Your task to perform on an android device: open app "Venmo" (install if not already installed) Image 0: 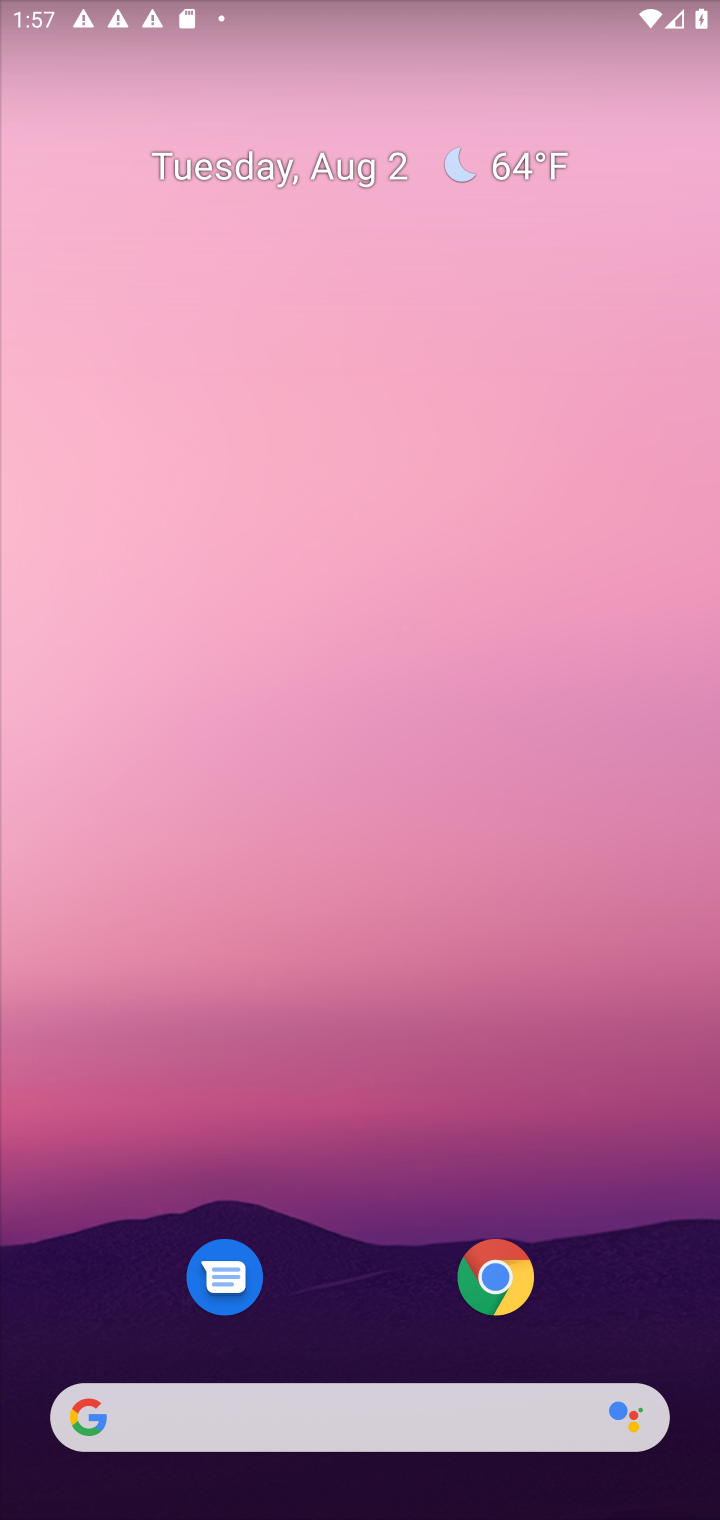
Step 0: drag from (370, 1068) to (630, 54)
Your task to perform on an android device: open app "Venmo" (install if not already installed) Image 1: 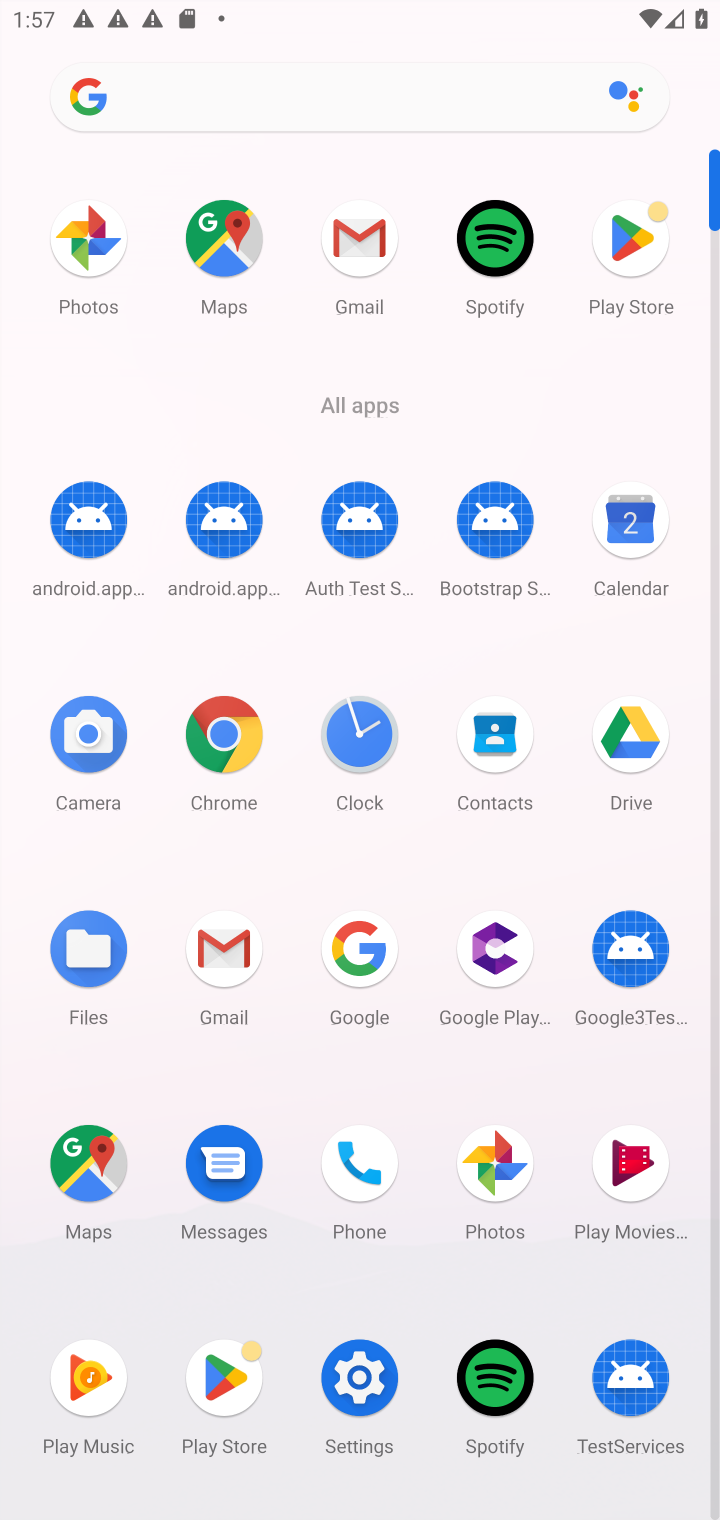
Step 1: click (637, 239)
Your task to perform on an android device: open app "Venmo" (install if not already installed) Image 2: 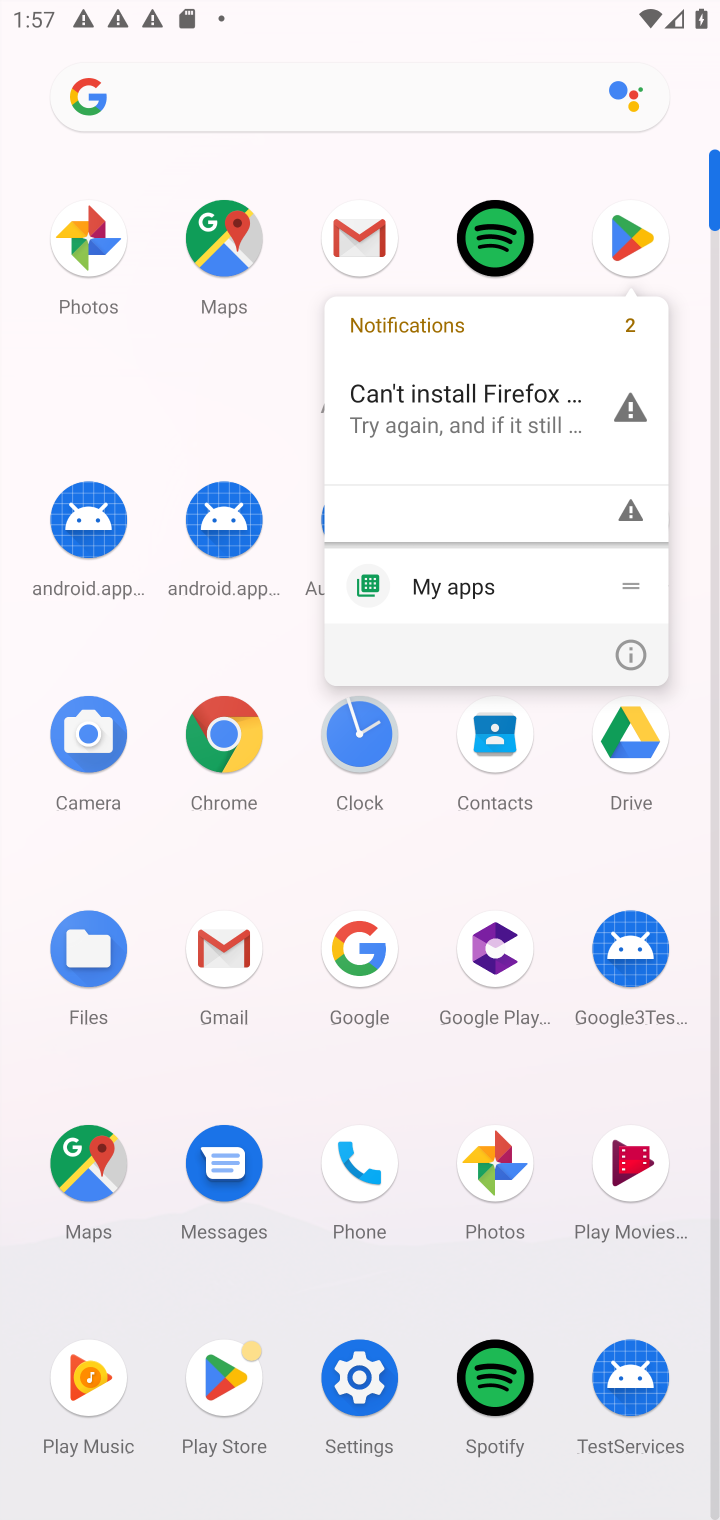
Step 2: click (626, 224)
Your task to perform on an android device: open app "Venmo" (install if not already installed) Image 3: 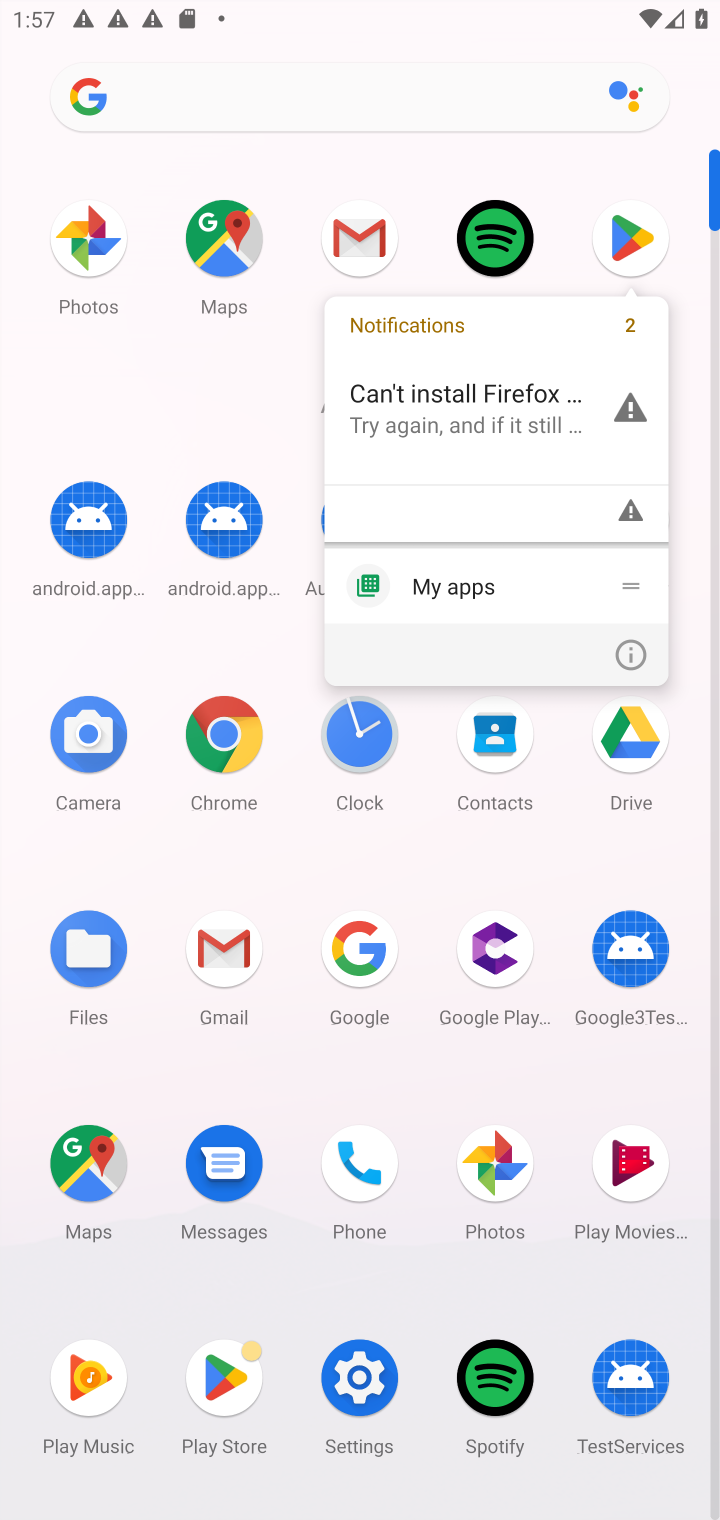
Step 3: click (626, 237)
Your task to perform on an android device: open app "Venmo" (install if not already installed) Image 4: 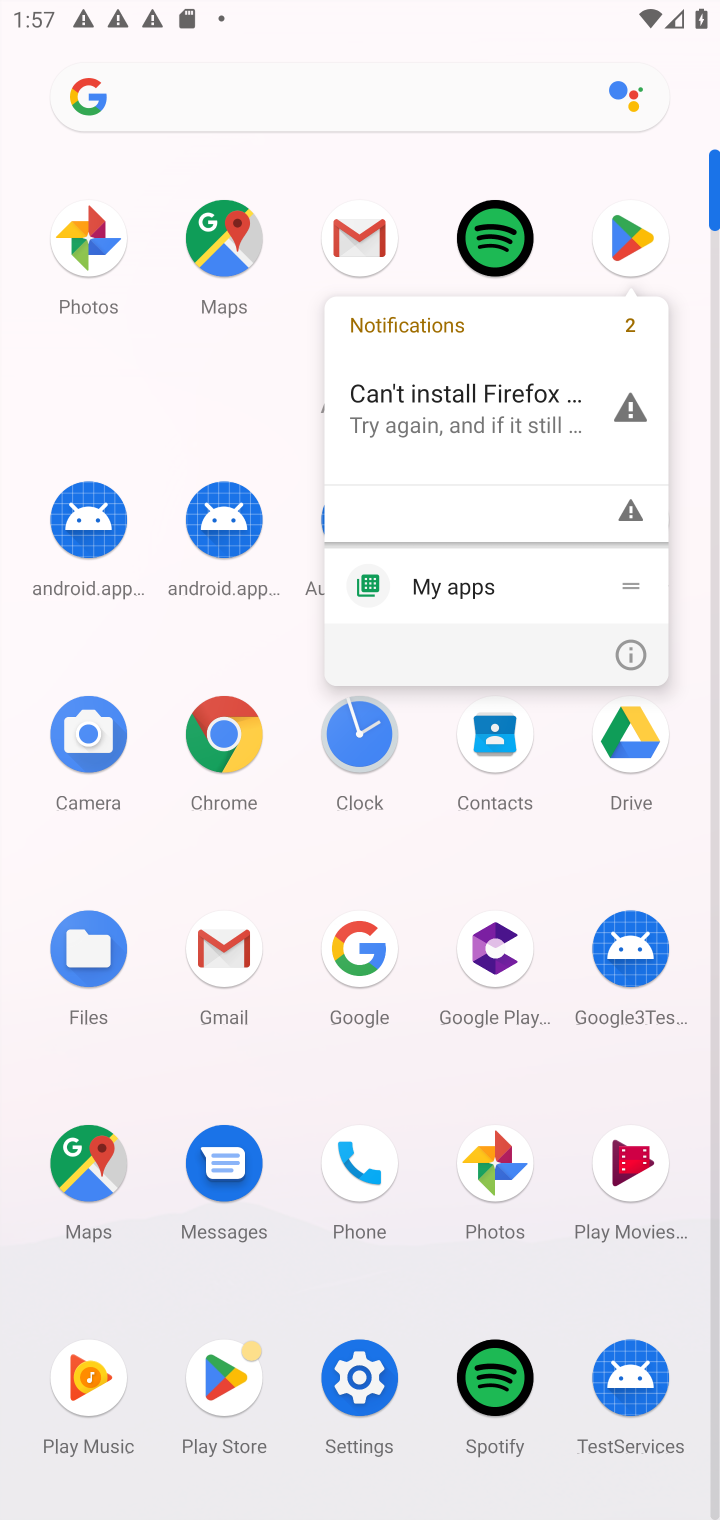
Step 4: click (637, 252)
Your task to perform on an android device: open app "Venmo" (install if not already installed) Image 5: 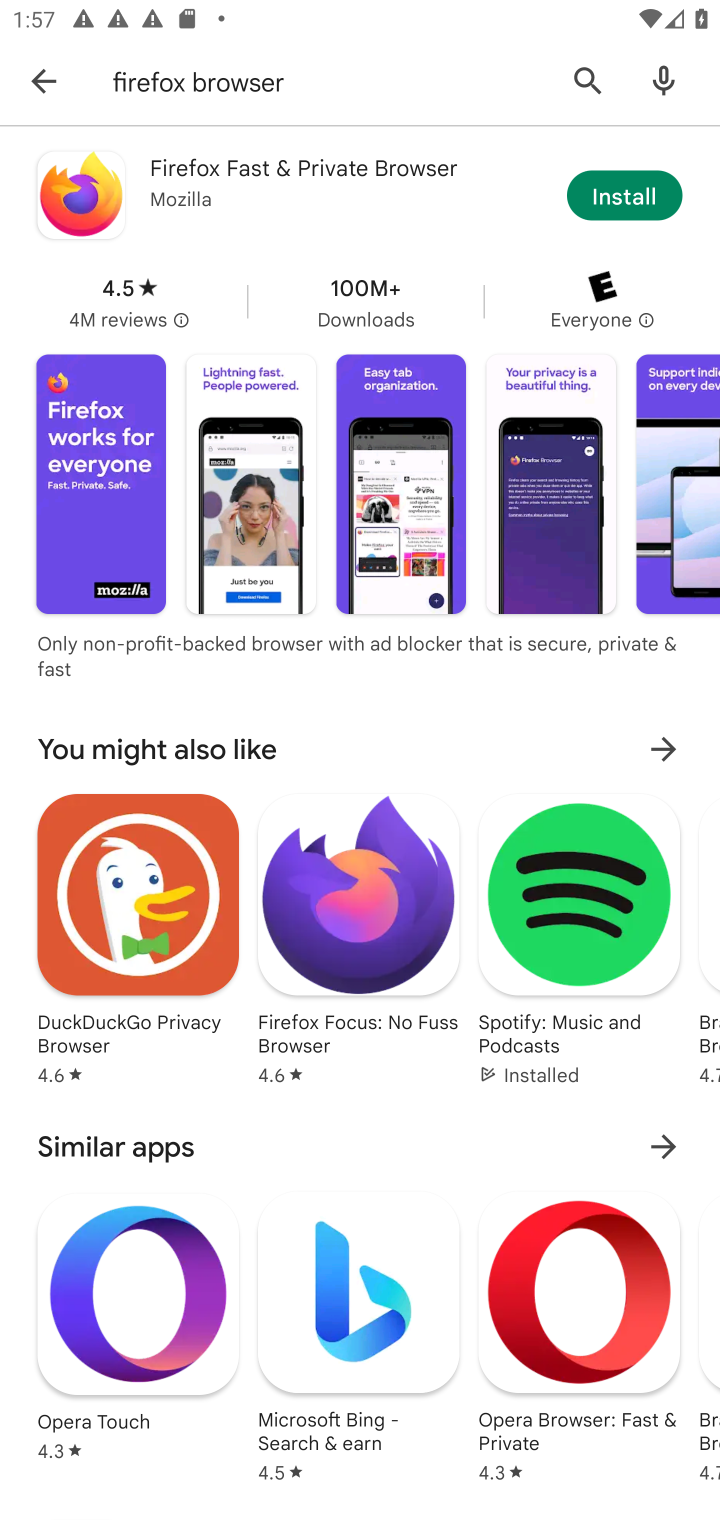
Step 5: click (572, 76)
Your task to perform on an android device: open app "Venmo" (install if not already installed) Image 6: 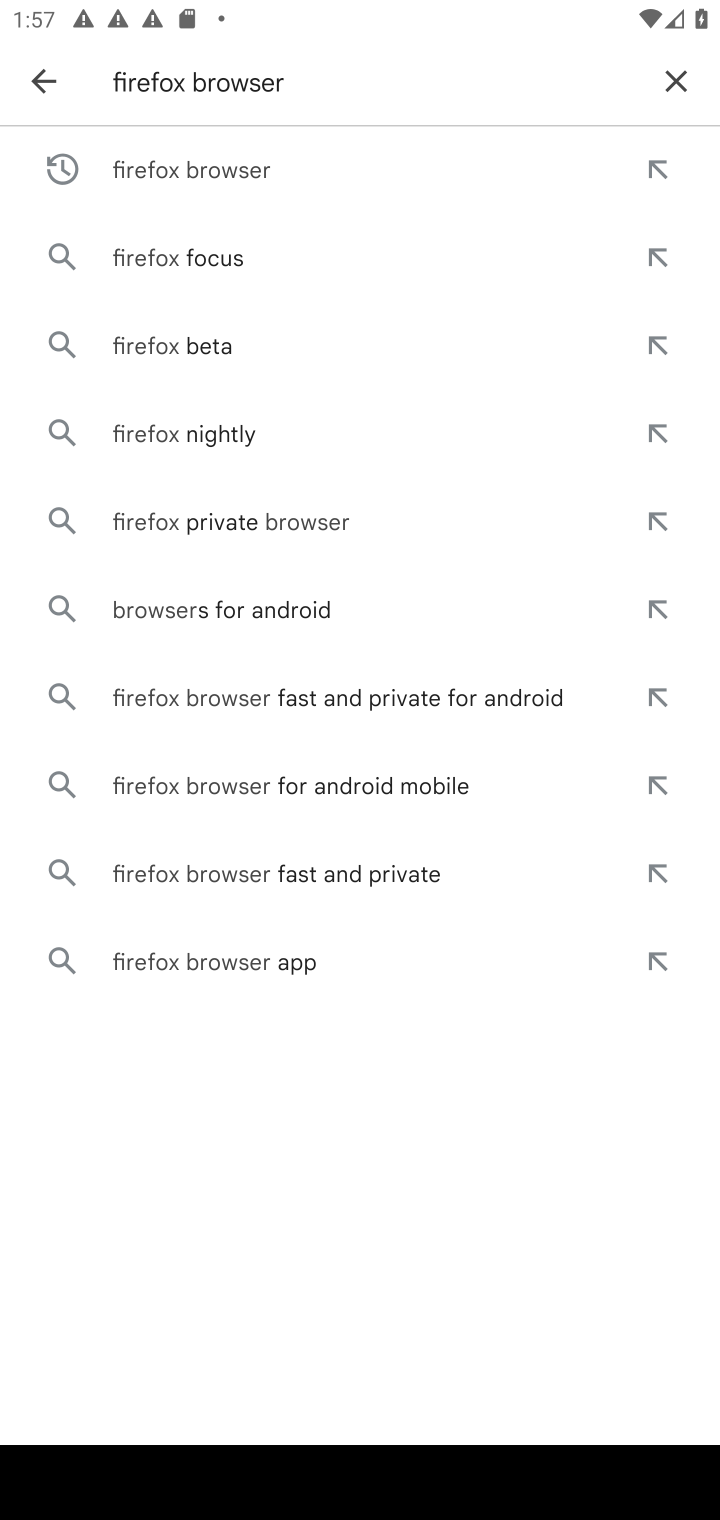
Step 6: click (686, 86)
Your task to perform on an android device: open app "Venmo" (install if not already installed) Image 7: 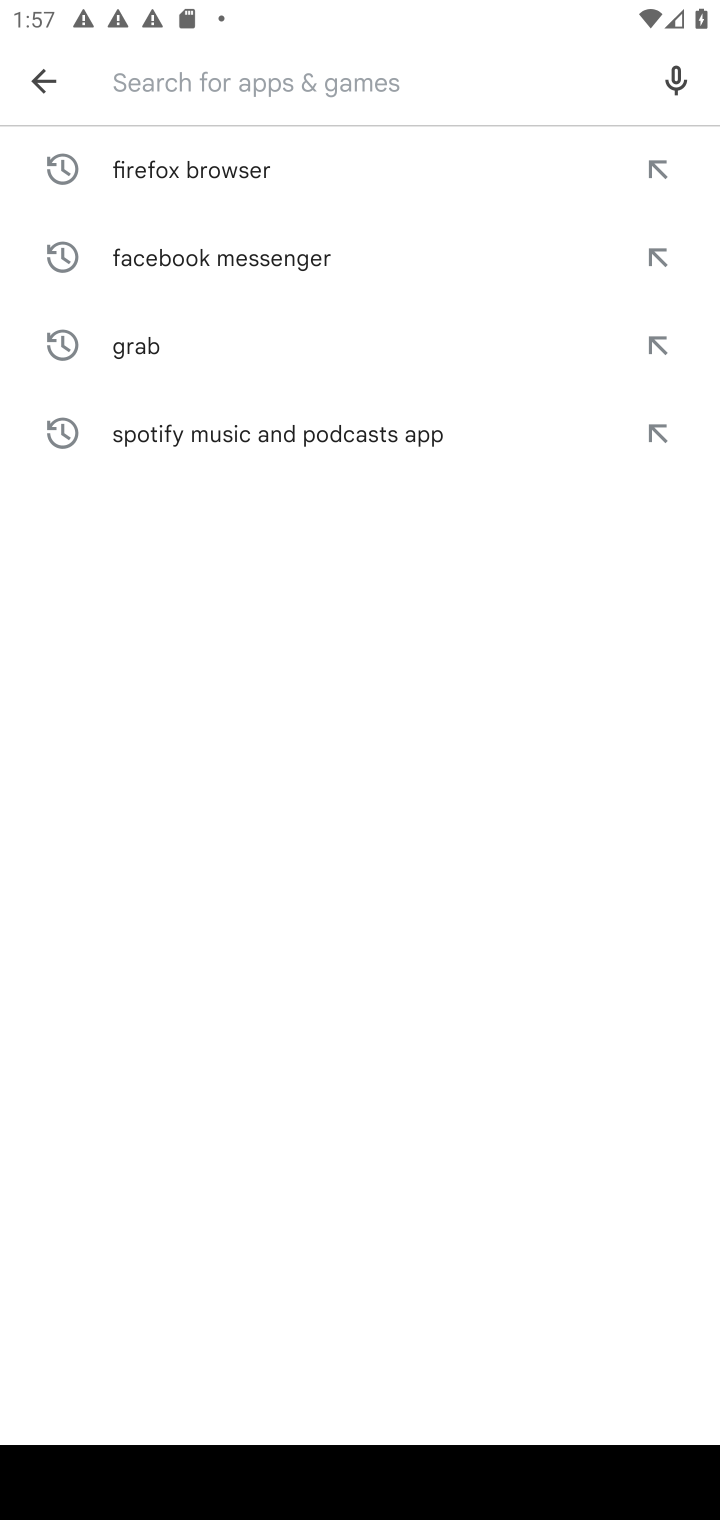
Step 7: type "Venmo"
Your task to perform on an android device: open app "Venmo" (install if not already installed) Image 8: 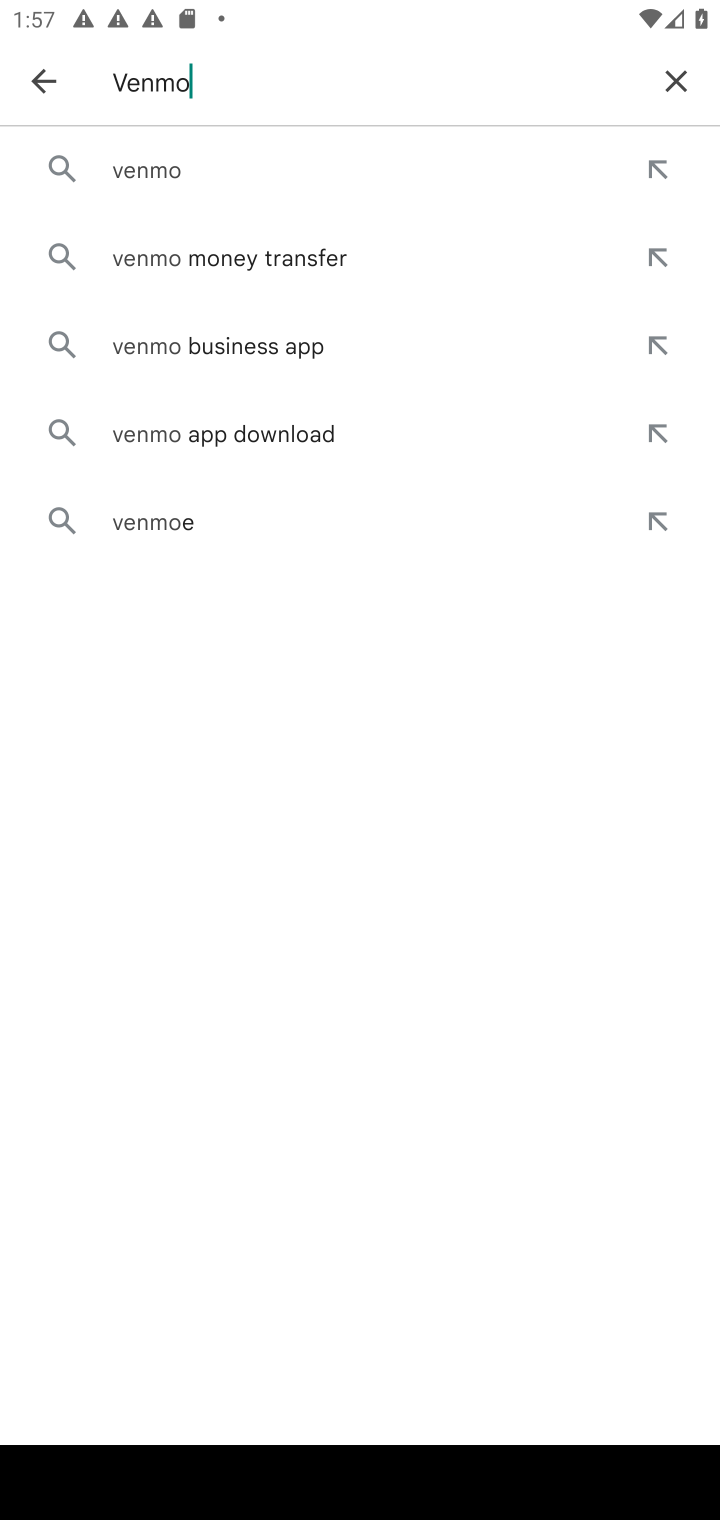
Step 8: click (144, 162)
Your task to perform on an android device: open app "Venmo" (install if not already installed) Image 9: 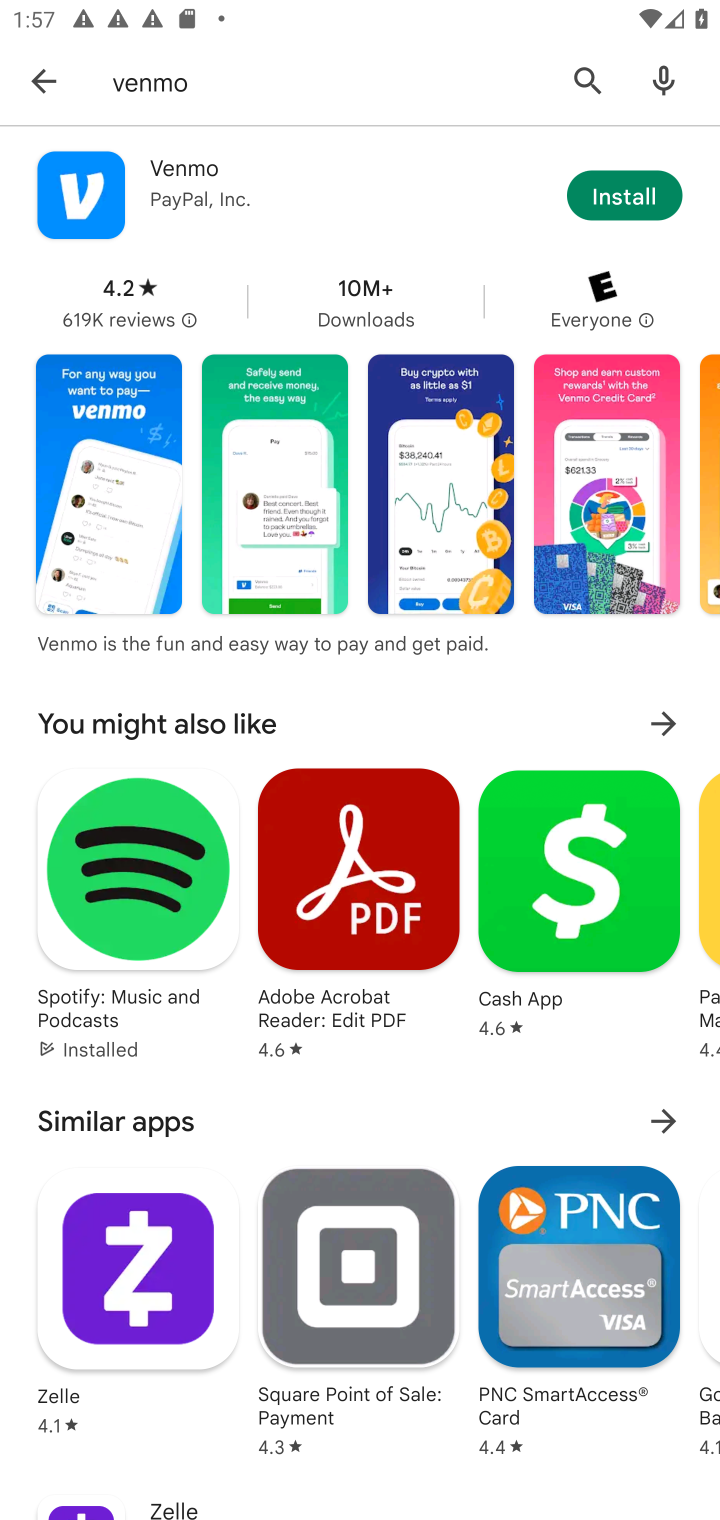
Step 9: click (645, 199)
Your task to perform on an android device: open app "Venmo" (install if not already installed) Image 10: 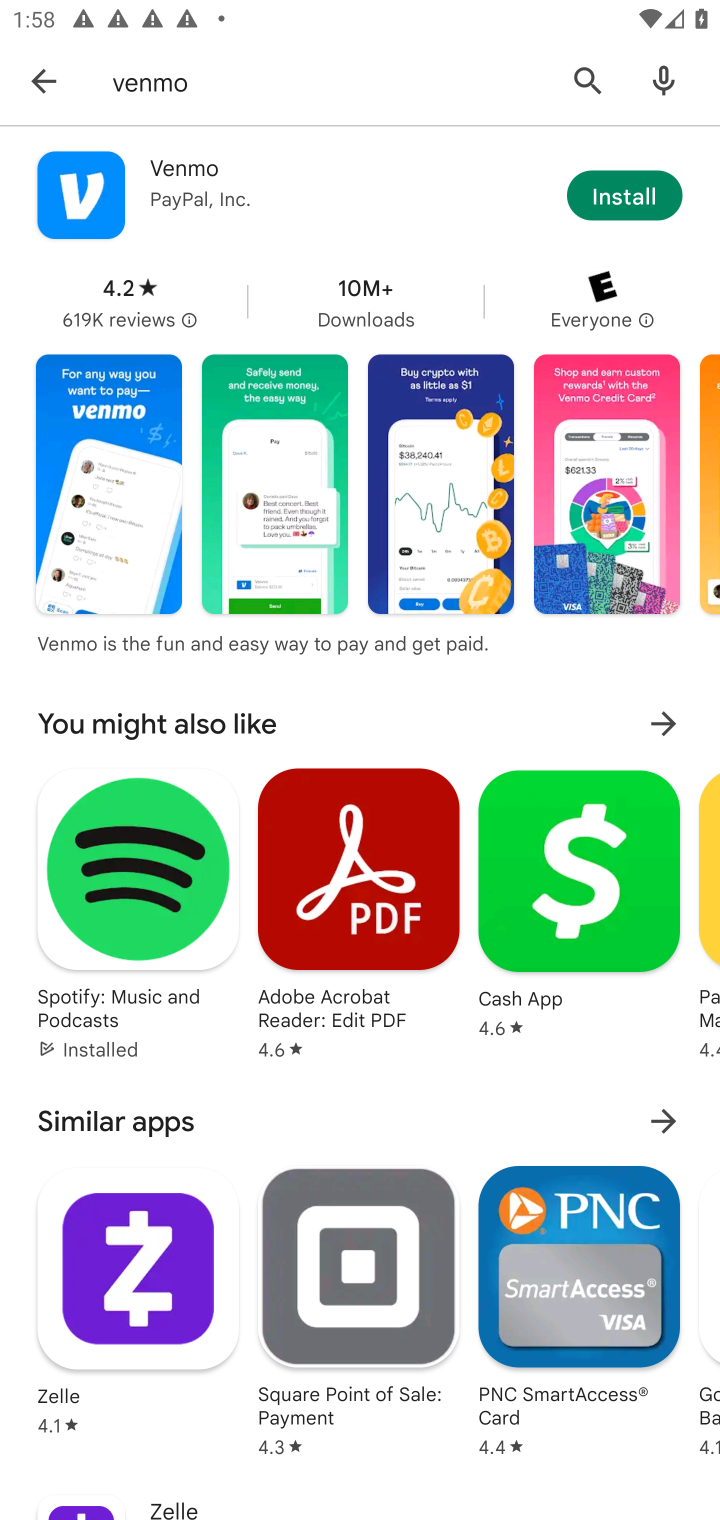
Step 10: click (615, 197)
Your task to perform on an android device: open app "Venmo" (install if not already installed) Image 11: 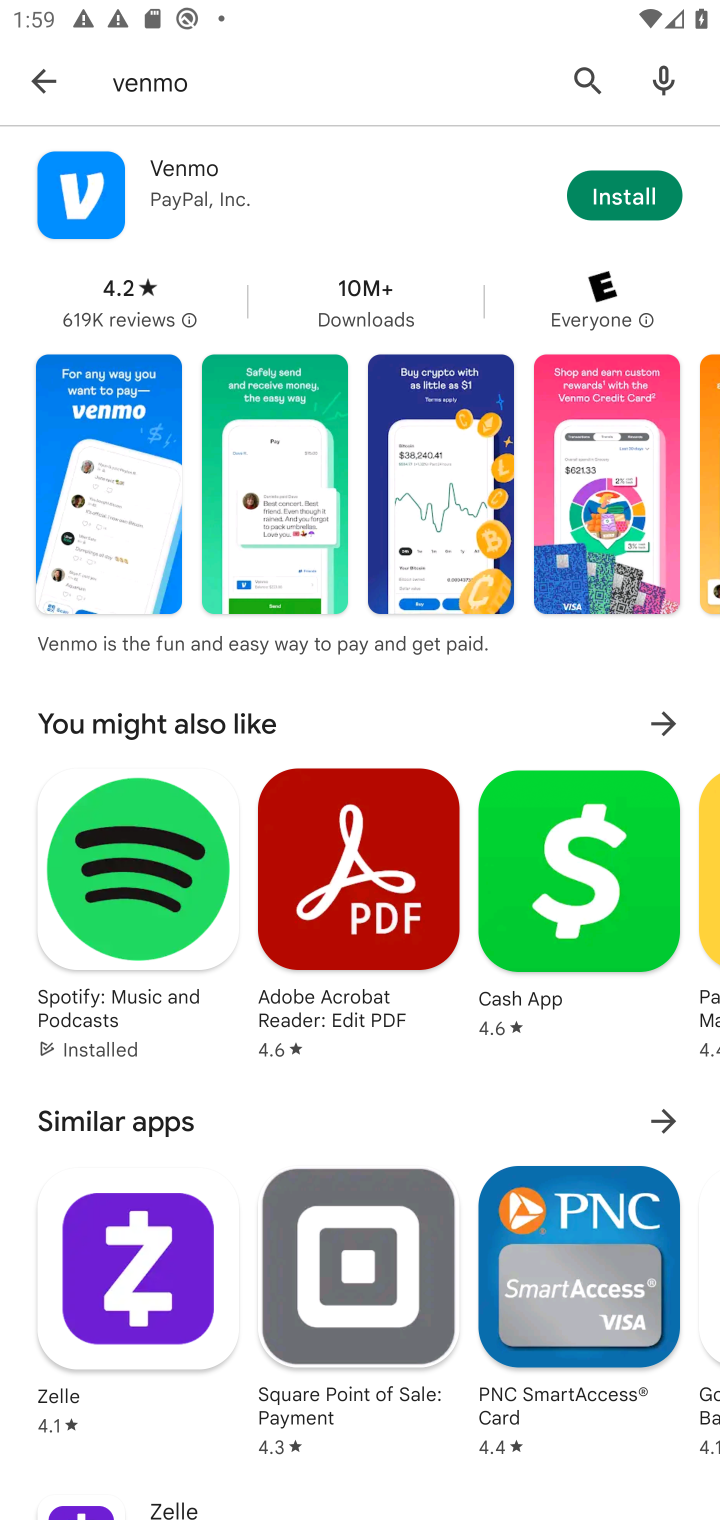
Step 11: task complete